Your task to perform on an android device: Go to settings Image 0: 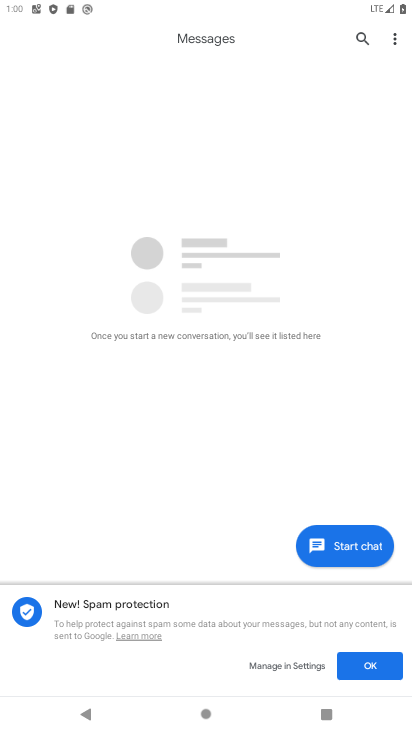
Step 0: press home button
Your task to perform on an android device: Go to settings Image 1: 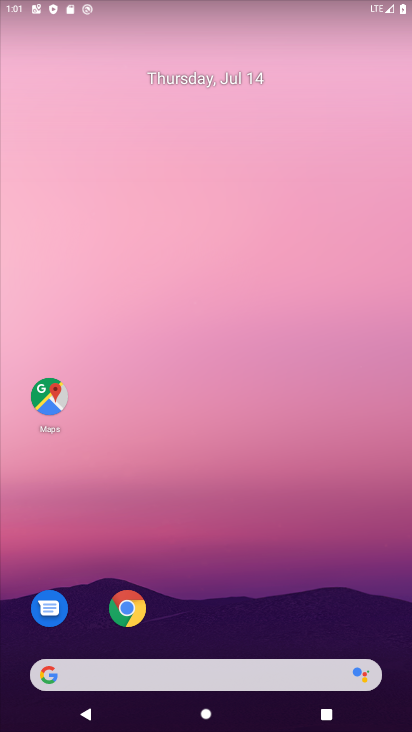
Step 1: drag from (250, 723) to (242, 64)
Your task to perform on an android device: Go to settings Image 2: 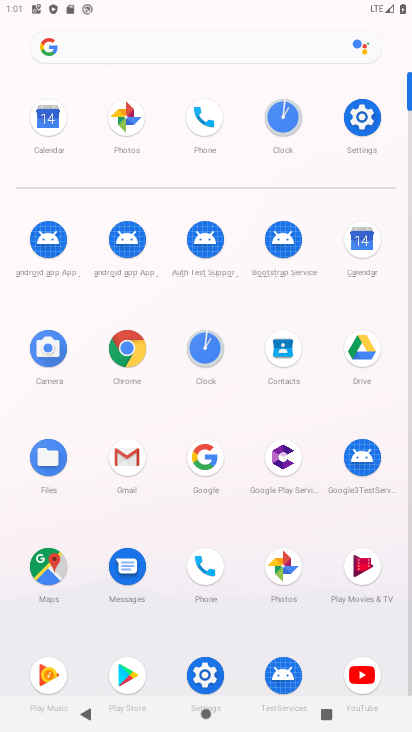
Step 2: click (365, 112)
Your task to perform on an android device: Go to settings Image 3: 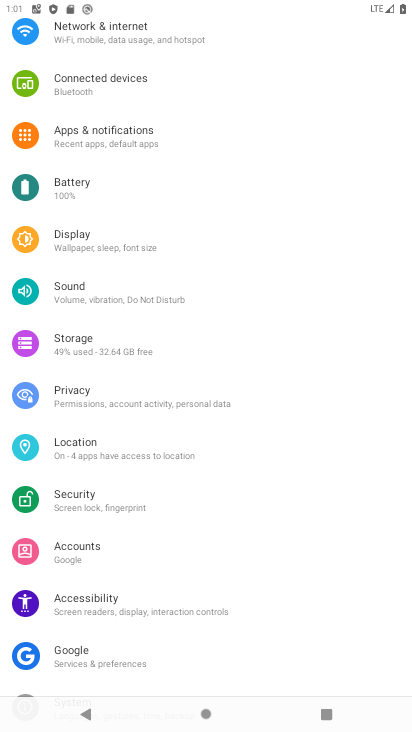
Step 3: task complete